Your task to perform on an android device: What's the weather? Image 0: 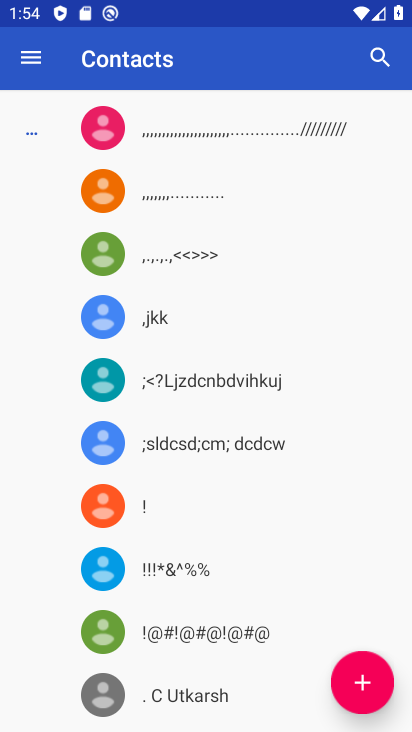
Step 0: press home button
Your task to perform on an android device: What's the weather? Image 1: 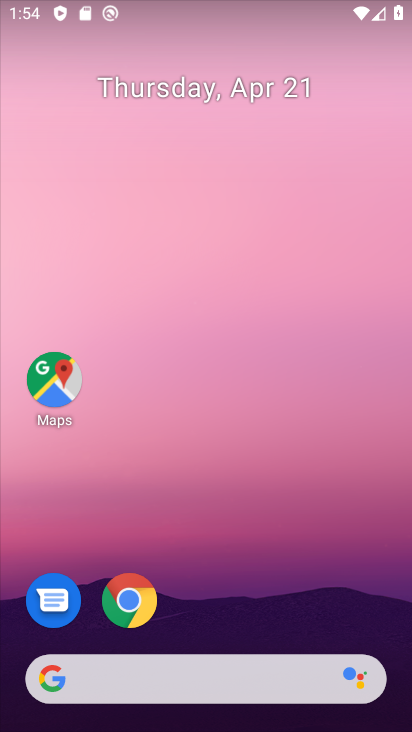
Step 1: drag from (235, 535) to (220, 165)
Your task to perform on an android device: What's the weather? Image 2: 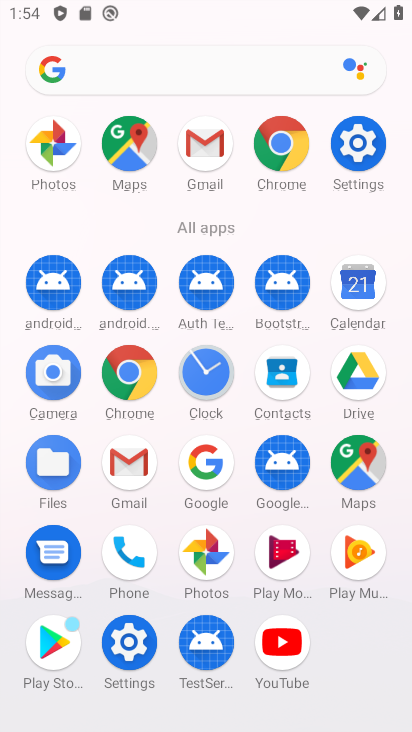
Step 2: click (277, 138)
Your task to perform on an android device: What's the weather? Image 3: 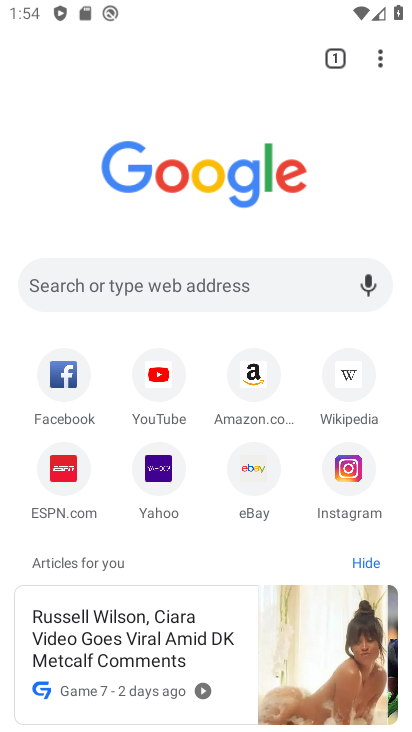
Step 3: click (233, 279)
Your task to perform on an android device: What's the weather? Image 4: 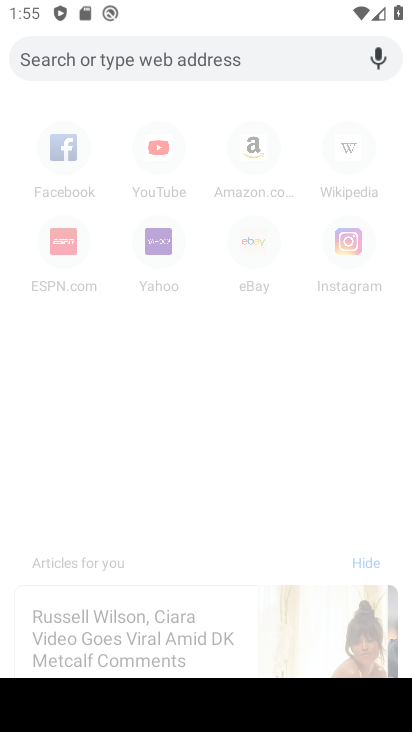
Step 4: type "weather"
Your task to perform on an android device: What's the weather? Image 5: 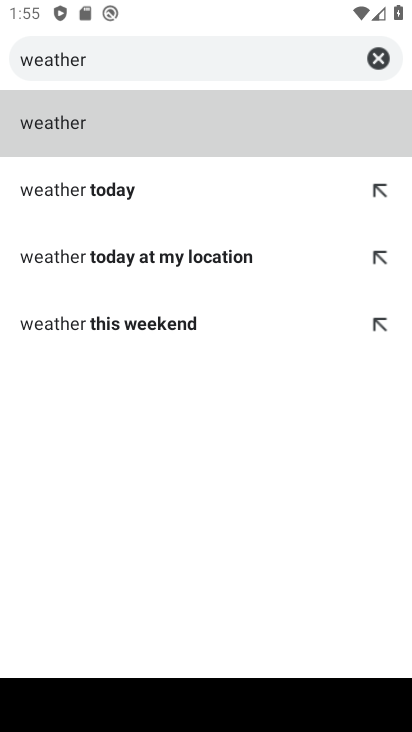
Step 5: click (36, 128)
Your task to perform on an android device: What's the weather? Image 6: 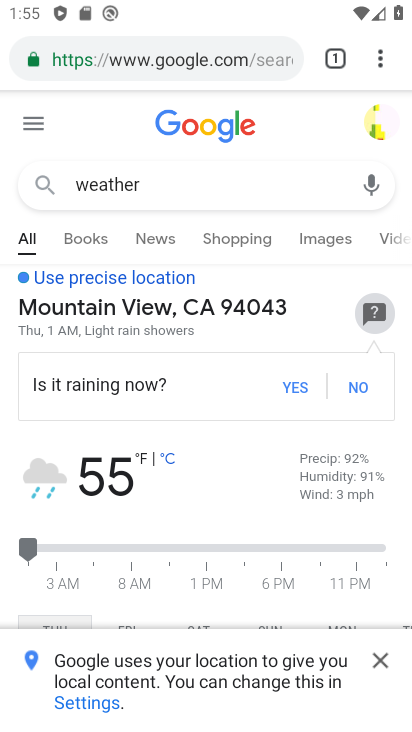
Step 6: task complete